Your task to perform on an android device: check out phone information Image 0: 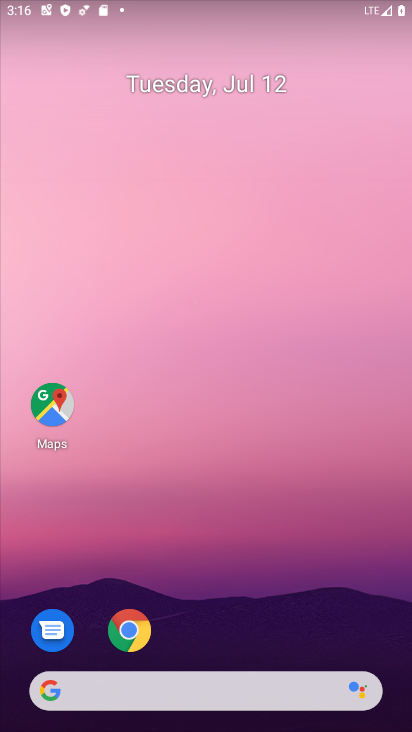
Step 0: drag from (247, 683) to (289, 18)
Your task to perform on an android device: check out phone information Image 1: 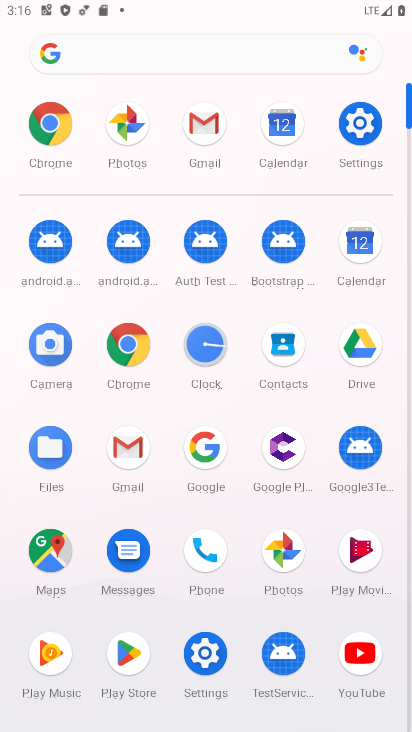
Step 1: click (362, 117)
Your task to perform on an android device: check out phone information Image 2: 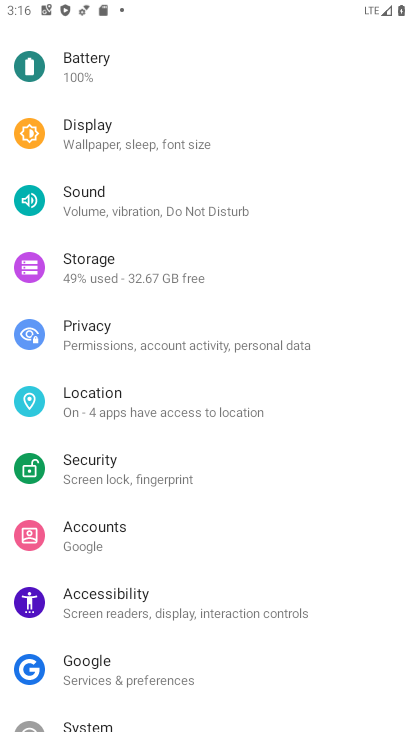
Step 2: drag from (248, 699) to (248, 87)
Your task to perform on an android device: check out phone information Image 3: 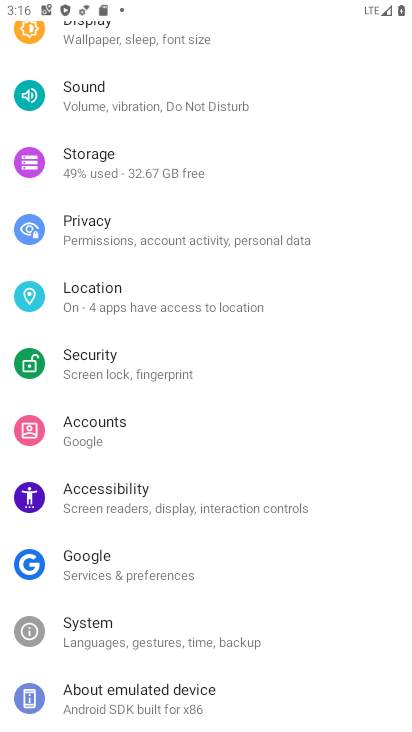
Step 3: click (177, 699)
Your task to perform on an android device: check out phone information Image 4: 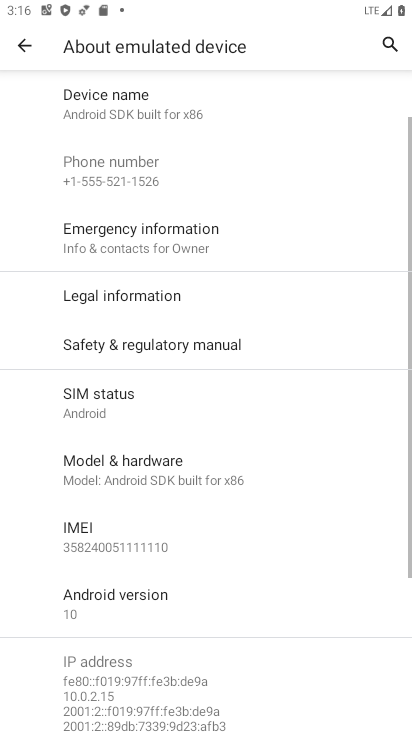
Step 4: task complete